Your task to perform on an android device: Search for "apple airpods" on target, select the first entry, add it to the cart, then select checkout. Image 0: 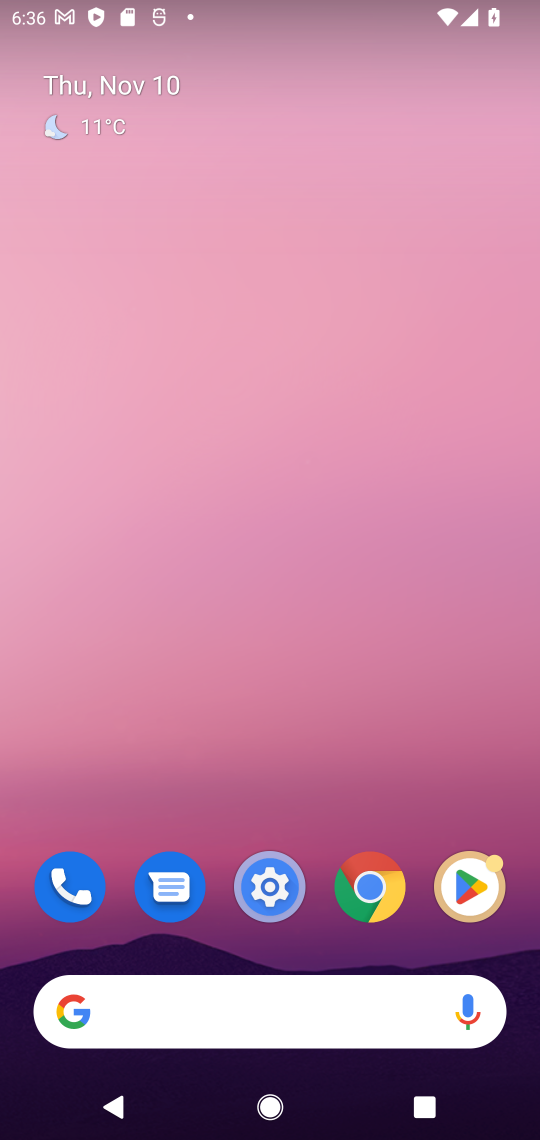
Step 0: click (178, 1005)
Your task to perform on an android device: Search for "apple airpods" on target, select the first entry, add it to the cart, then select checkout. Image 1: 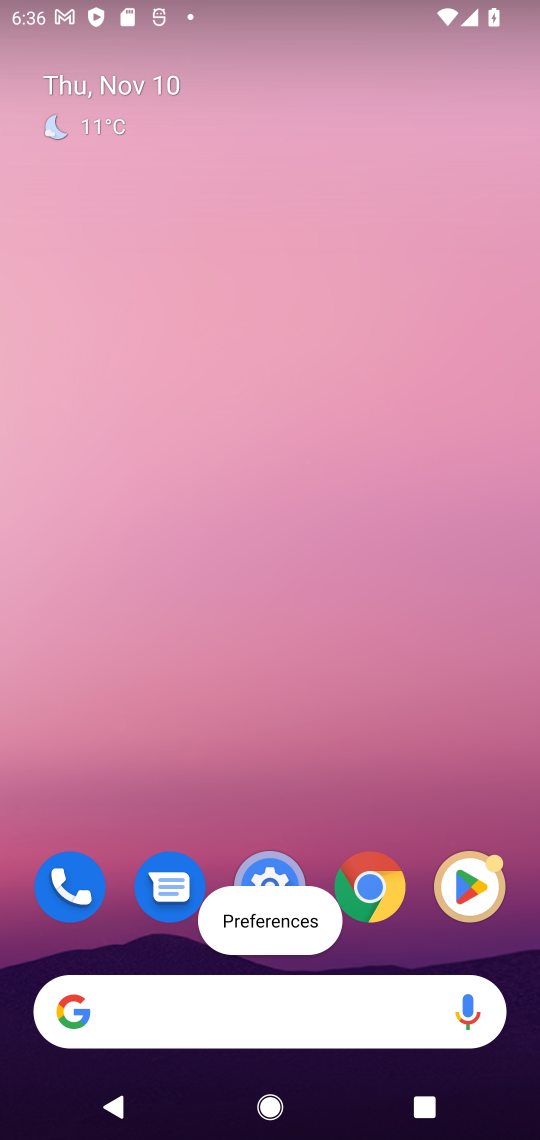
Step 1: click (77, 1009)
Your task to perform on an android device: Search for "apple airpods" on target, select the first entry, add it to the cart, then select checkout. Image 2: 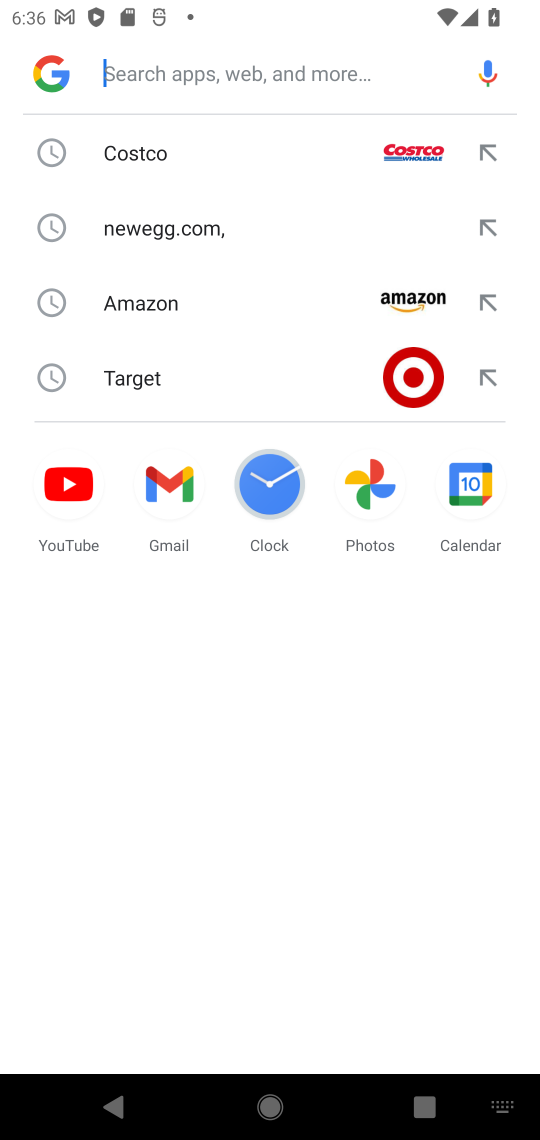
Step 2: click (121, 376)
Your task to perform on an android device: Search for "apple airpods" on target, select the first entry, add it to the cart, then select checkout. Image 3: 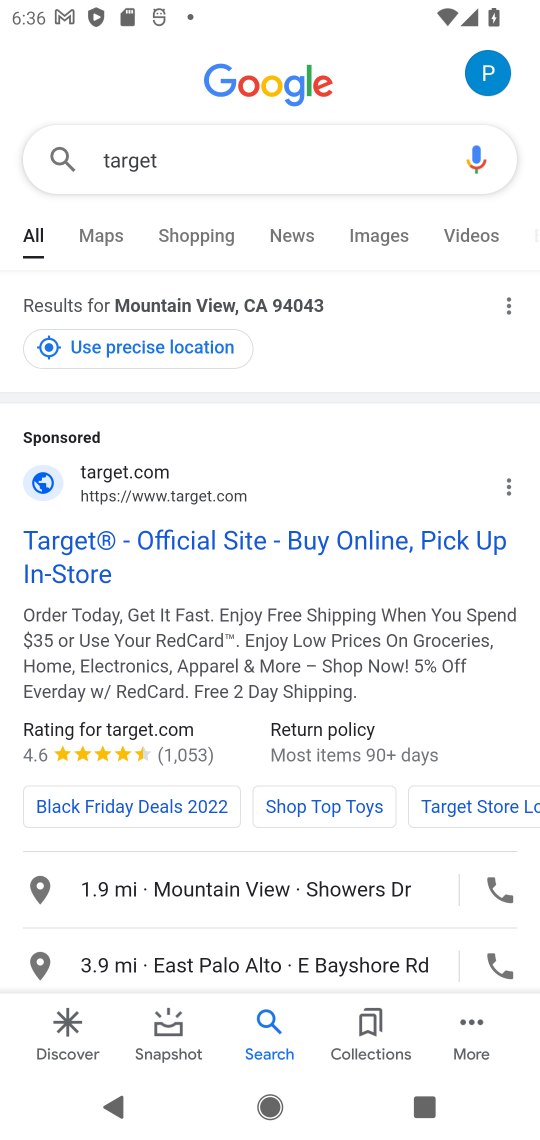
Step 3: click (89, 470)
Your task to perform on an android device: Search for "apple airpods" on target, select the first entry, add it to the cart, then select checkout. Image 4: 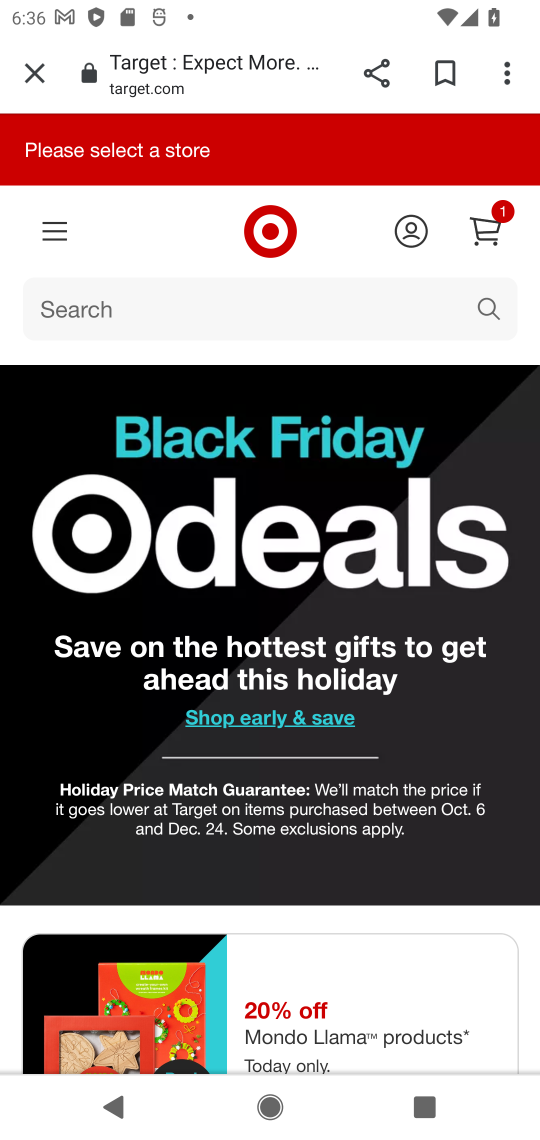
Step 4: click (184, 299)
Your task to perform on an android device: Search for "apple airpods" on target, select the first entry, add it to the cart, then select checkout. Image 5: 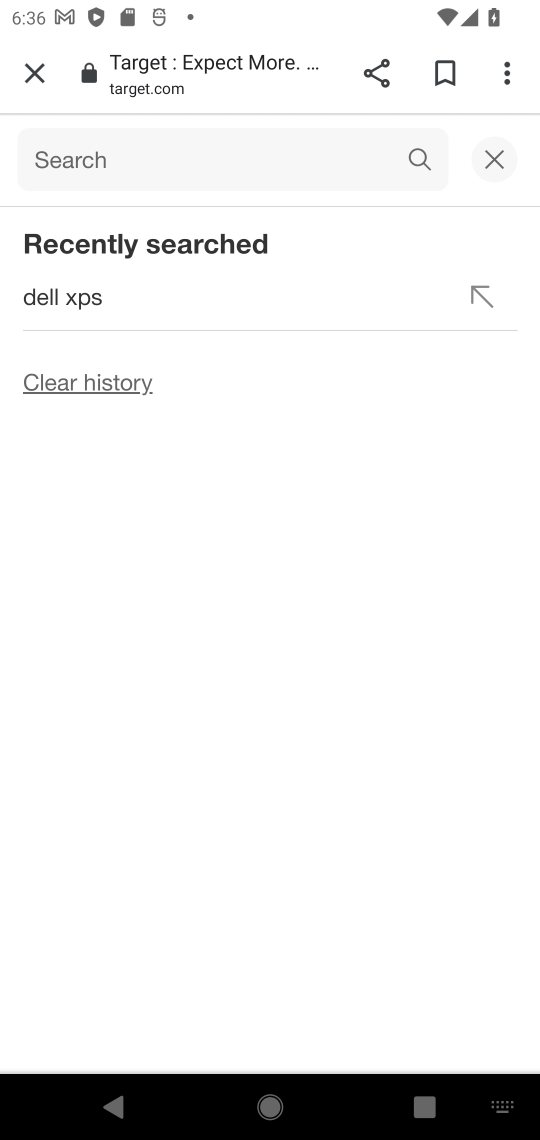
Step 5: type "apple airpods"
Your task to perform on an android device: Search for "apple airpods" on target, select the first entry, add it to the cart, then select checkout. Image 6: 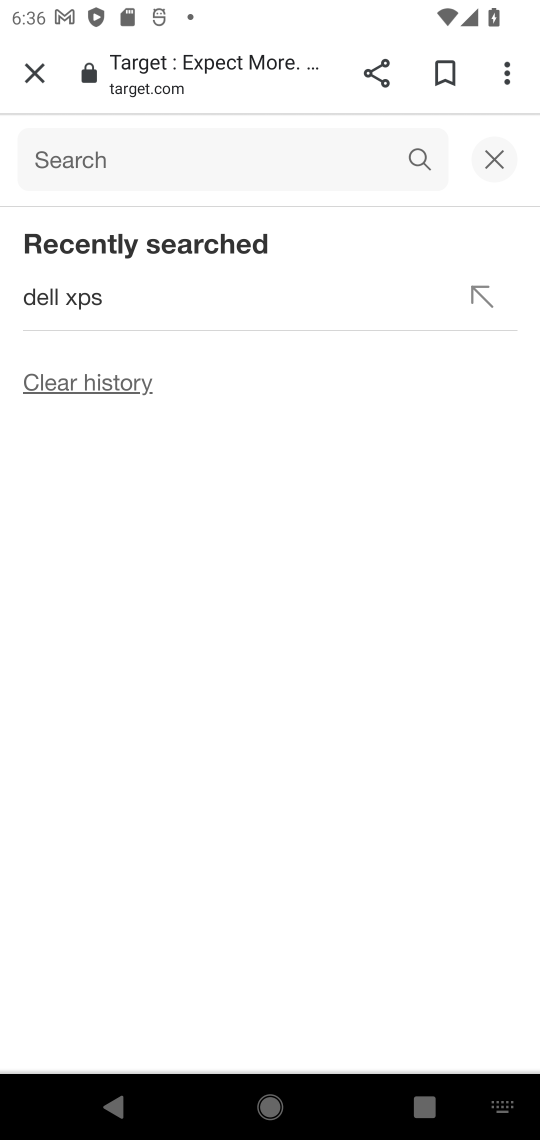
Step 6: type ""
Your task to perform on an android device: Search for "apple airpods" on target, select the first entry, add it to the cart, then select checkout. Image 7: 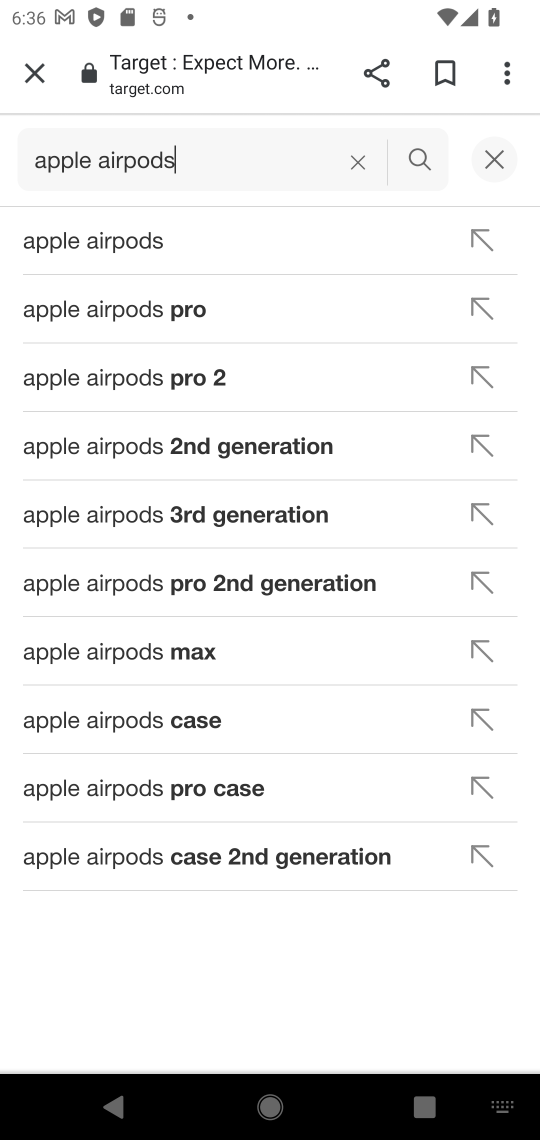
Step 7: click (112, 246)
Your task to perform on an android device: Search for "apple airpods" on target, select the first entry, add it to the cart, then select checkout. Image 8: 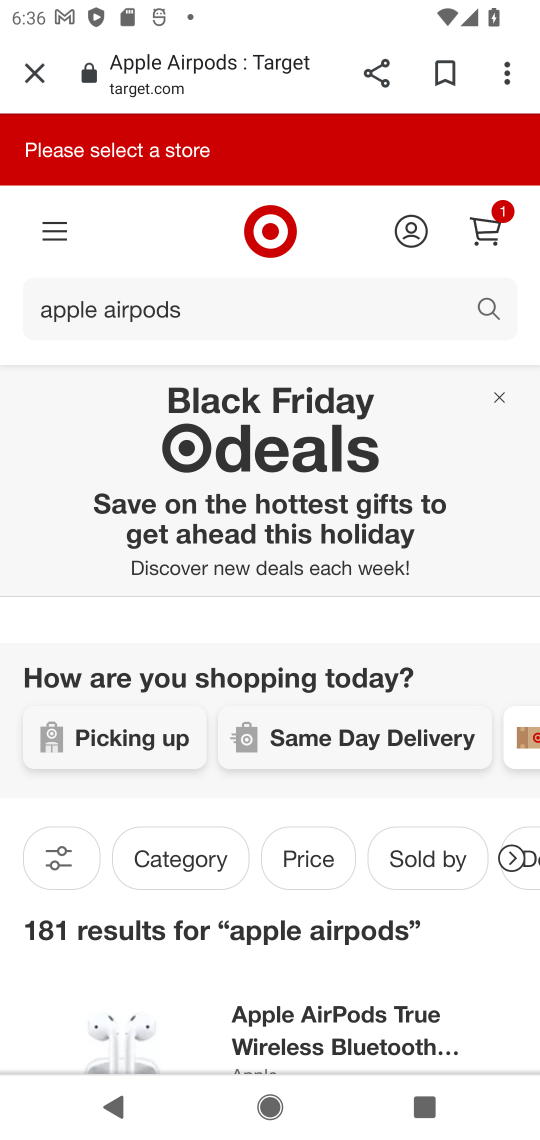
Step 8: drag from (255, 813) to (261, 333)
Your task to perform on an android device: Search for "apple airpods" on target, select the first entry, add it to the cart, then select checkout. Image 9: 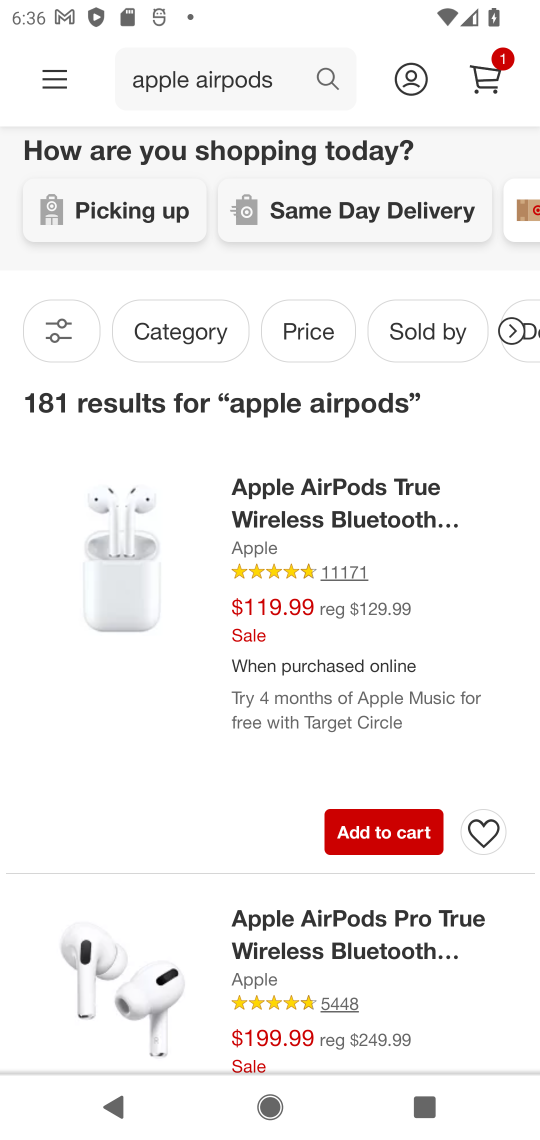
Step 9: click (374, 835)
Your task to perform on an android device: Search for "apple airpods" on target, select the first entry, add it to the cart, then select checkout. Image 10: 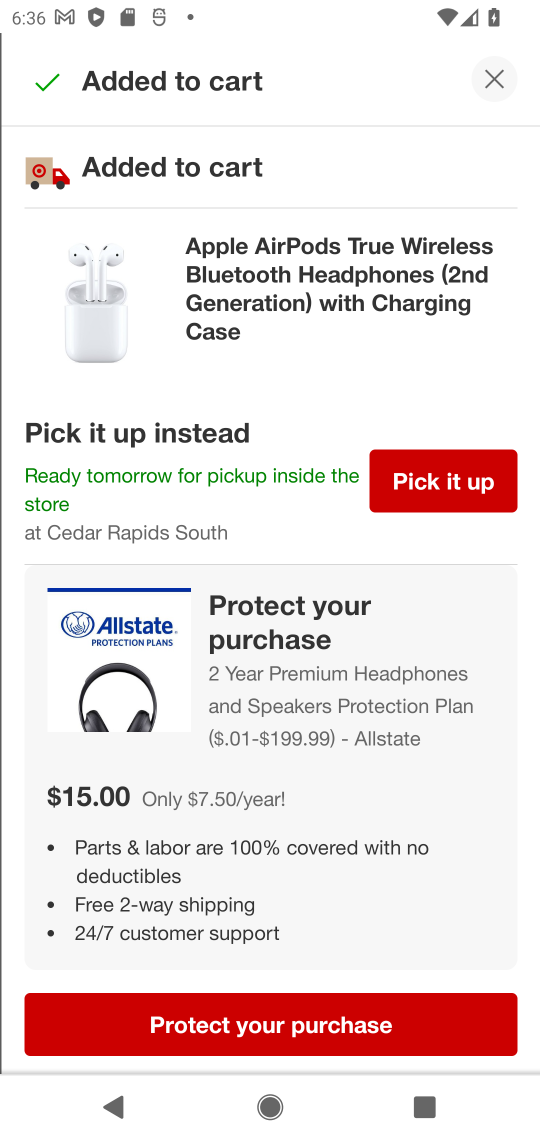
Step 10: click (488, 75)
Your task to perform on an android device: Search for "apple airpods" on target, select the first entry, add it to the cart, then select checkout. Image 11: 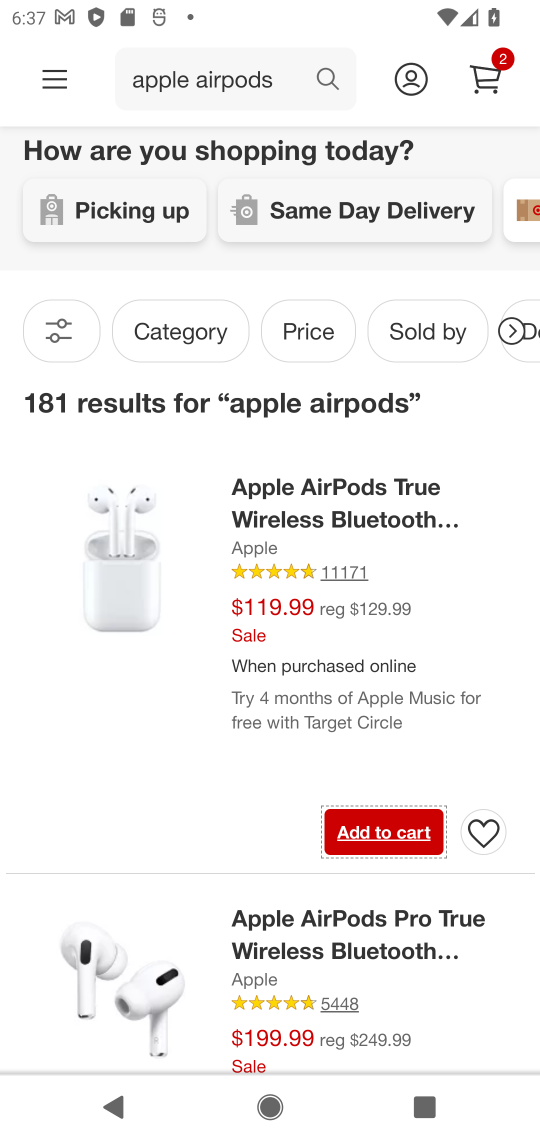
Step 11: click (483, 67)
Your task to perform on an android device: Search for "apple airpods" on target, select the first entry, add it to the cart, then select checkout. Image 12: 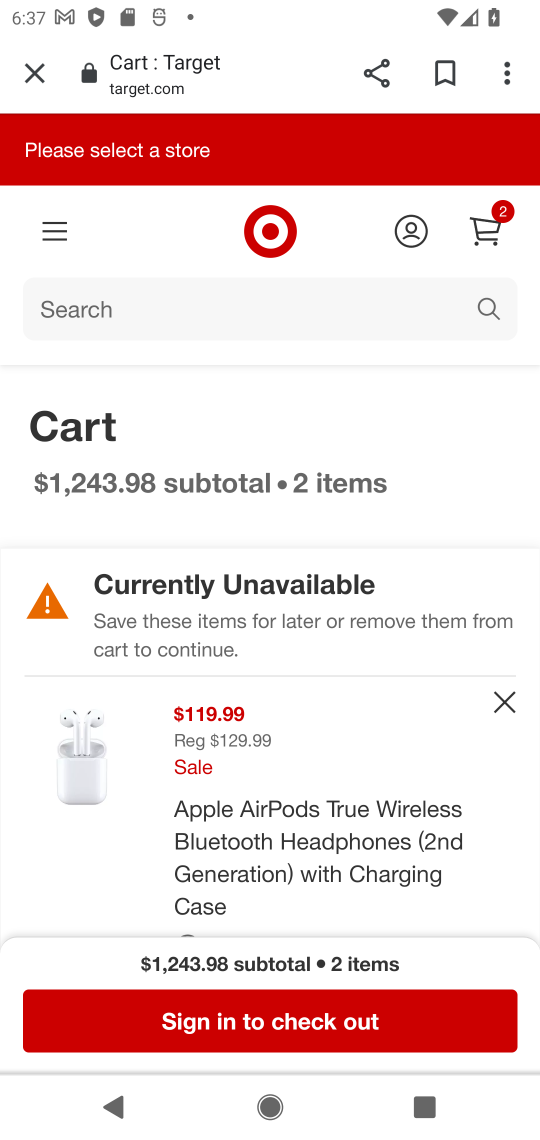
Step 12: click (254, 1017)
Your task to perform on an android device: Search for "apple airpods" on target, select the first entry, add it to the cart, then select checkout. Image 13: 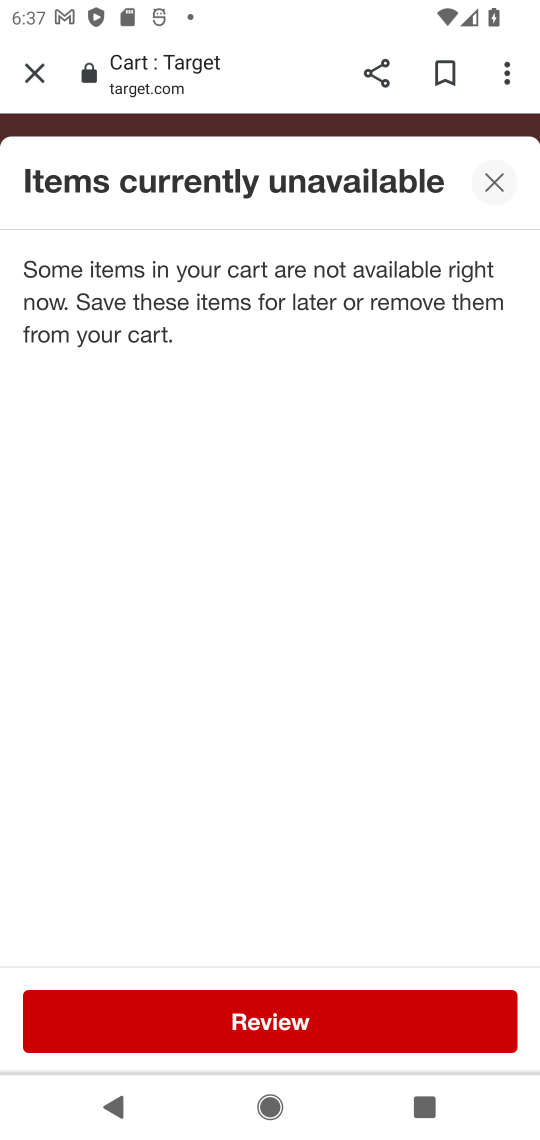
Step 13: task complete